Your task to perform on an android device: uninstall "The Home Depot" Image 0: 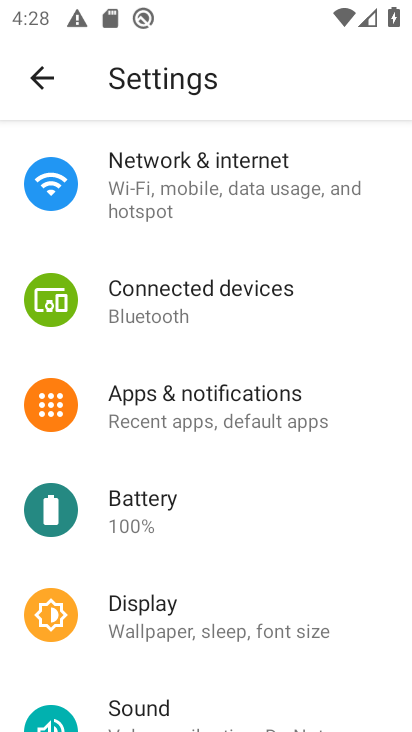
Step 0: press home button
Your task to perform on an android device: uninstall "The Home Depot" Image 1: 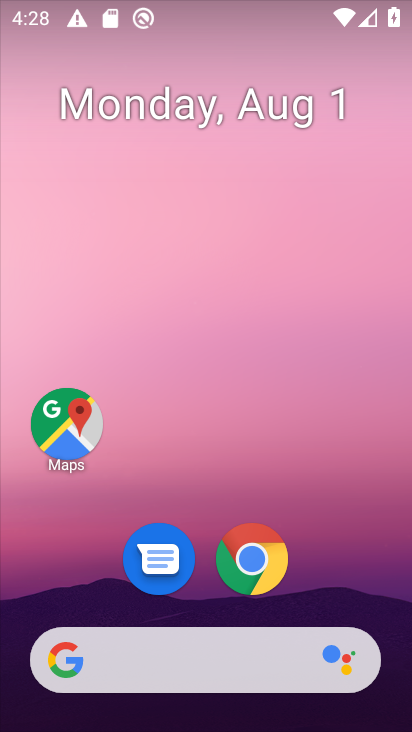
Step 1: drag from (165, 577) to (117, 119)
Your task to perform on an android device: uninstall "The Home Depot" Image 2: 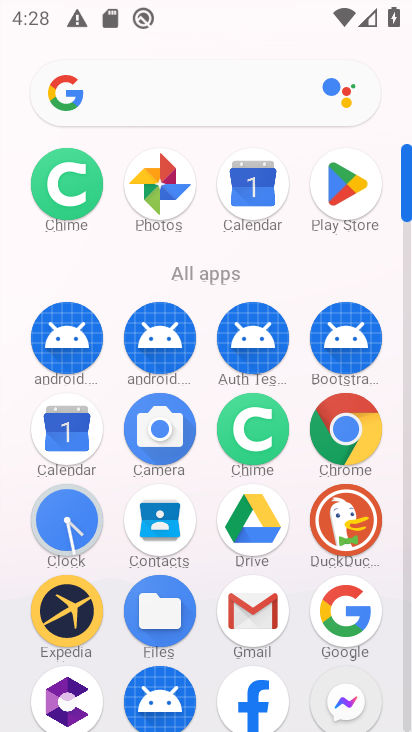
Step 2: click (341, 201)
Your task to perform on an android device: uninstall "The Home Depot" Image 3: 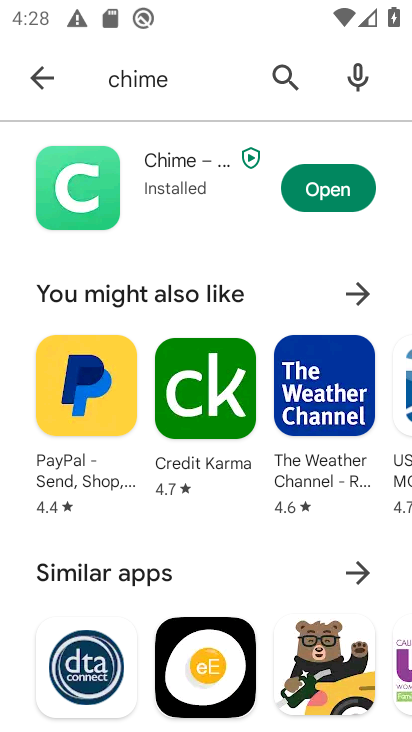
Step 3: click (192, 72)
Your task to perform on an android device: uninstall "The Home Depot" Image 4: 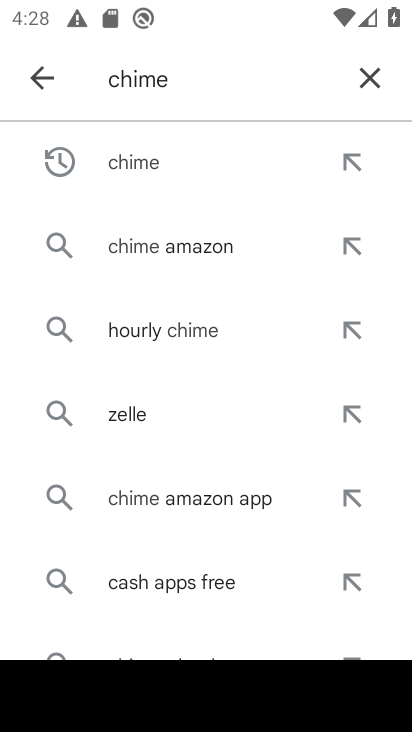
Step 4: click (363, 73)
Your task to perform on an android device: uninstall "The Home Depot" Image 5: 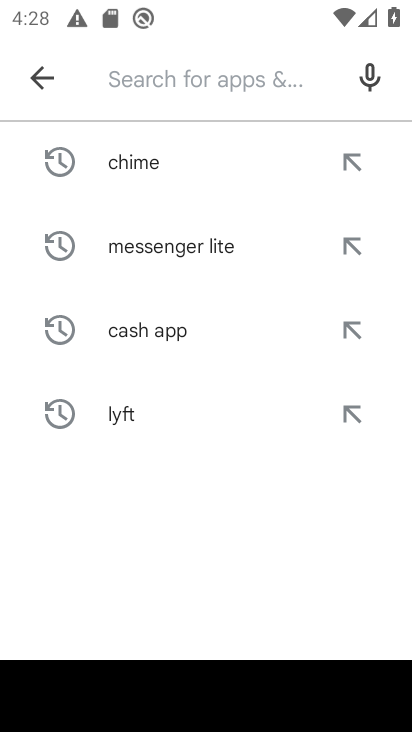
Step 5: type "the home depot"
Your task to perform on an android device: uninstall "The Home Depot" Image 6: 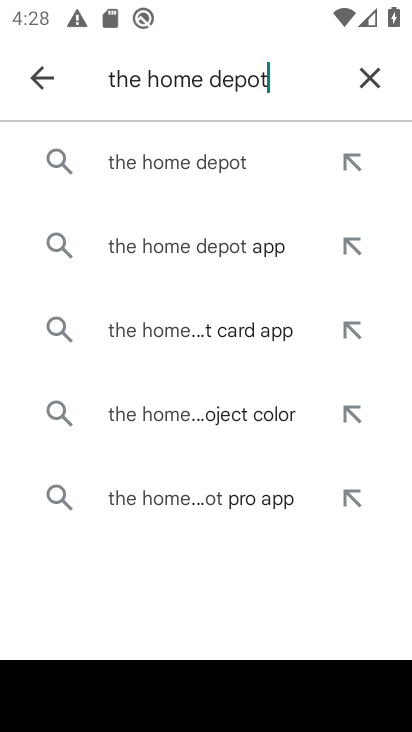
Step 6: click (211, 163)
Your task to perform on an android device: uninstall "The Home Depot" Image 7: 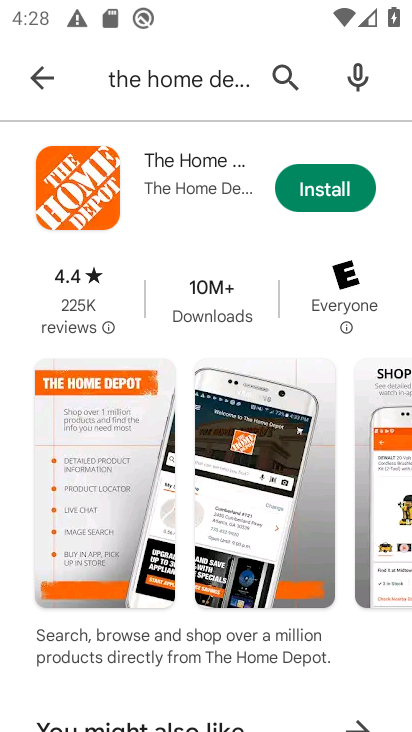
Step 7: task complete